Your task to perform on an android device: check the backup settings in the google photos Image 0: 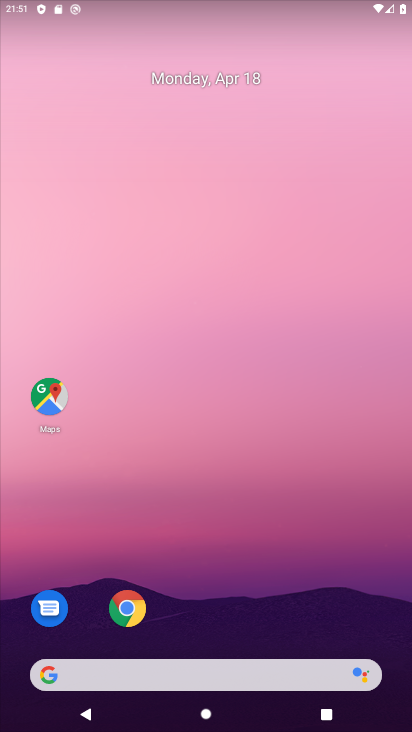
Step 0: drag from (256, 569) to (261, 179)
Your task to perform on an android device: check the backup settings in the google photos Image 1: 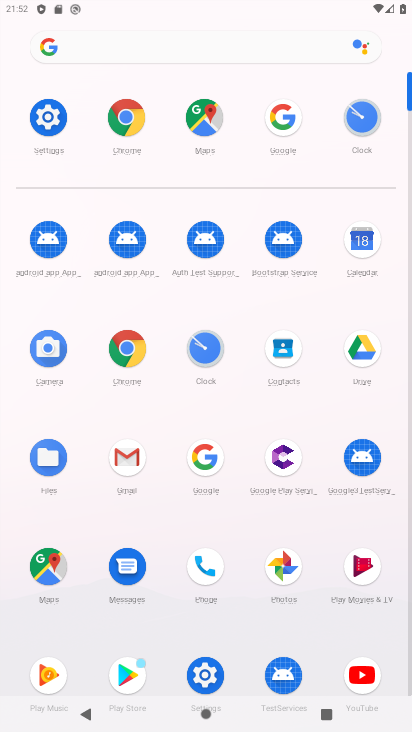
Step 1: click (284, 567)
Your task to perform on an android device: check the backup settings in the google photos Image 2: 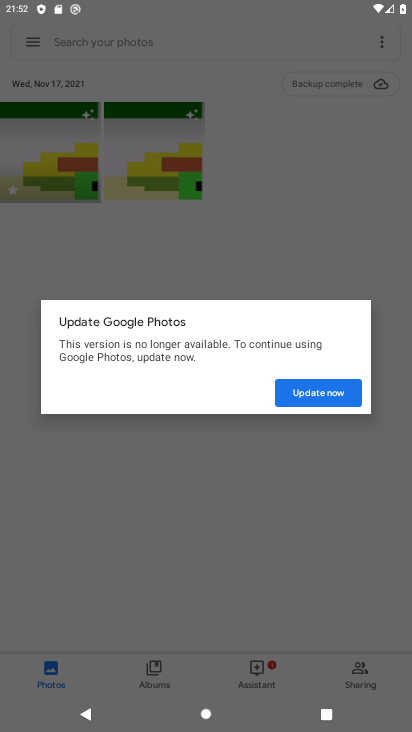
Step 2: click (320, 387)
Your task to perform on an android device: check the backup settings in the google photos Image 3: 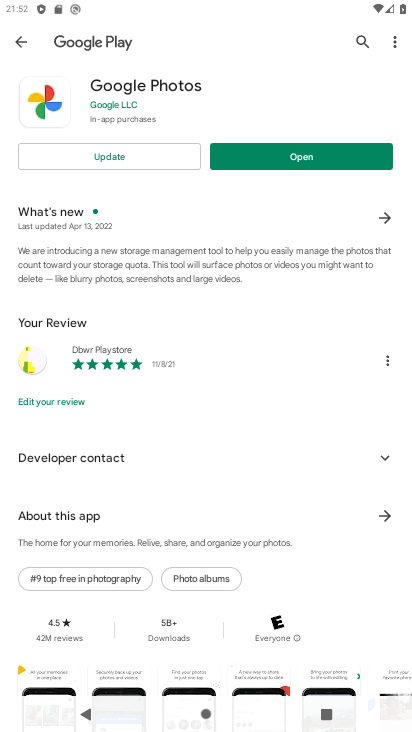
Step 3: click (260, 146)
Your task to perform on an android device: check the backup settings in the google photos Image 4: 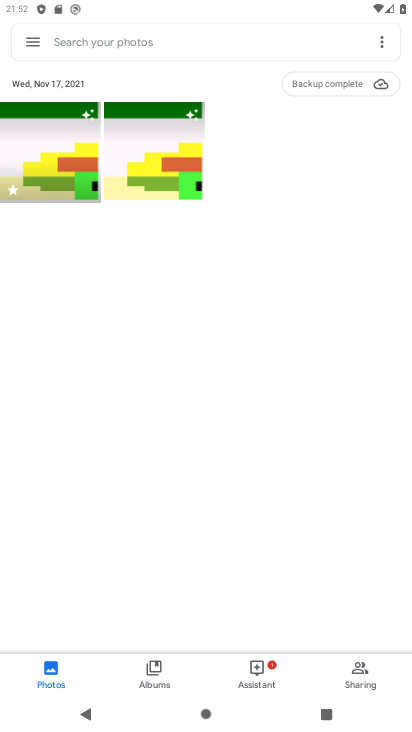
Step 4: click (37, 37)
Your task to perform on an android device: check the backup settings in the google photos Image 5: 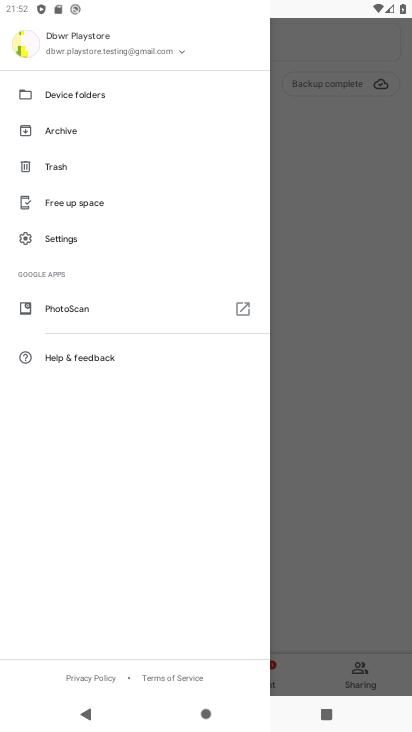
Step 5: click (83, 234)
Your task to perform on an android device: check the backup settings in the google photos Image 6: 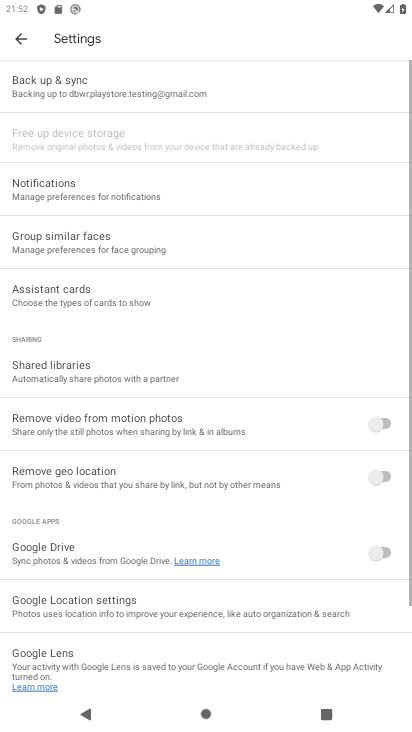
Step 6: click (98, 87)
Your task to perform on an android device: check the backup settings in the google photos Image 7: 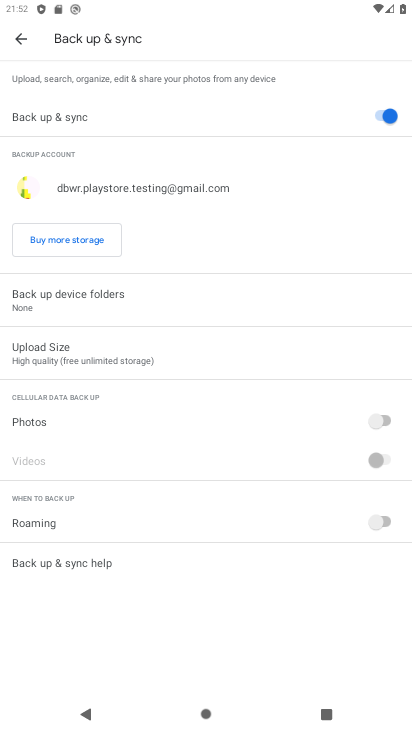
Step 7: task complete